Your task to perform on an android device: open the mobile data screen to see how much data has been used Image 0: 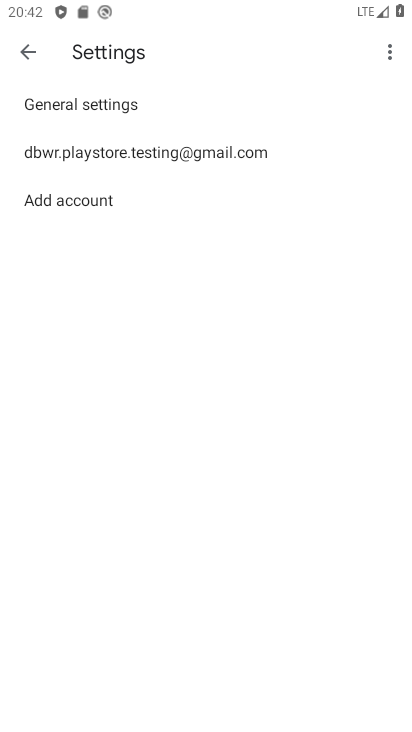
Step 0: press home button
Your task to perform on an android device: open the mobile data screen to see how much data has been used Image 1: 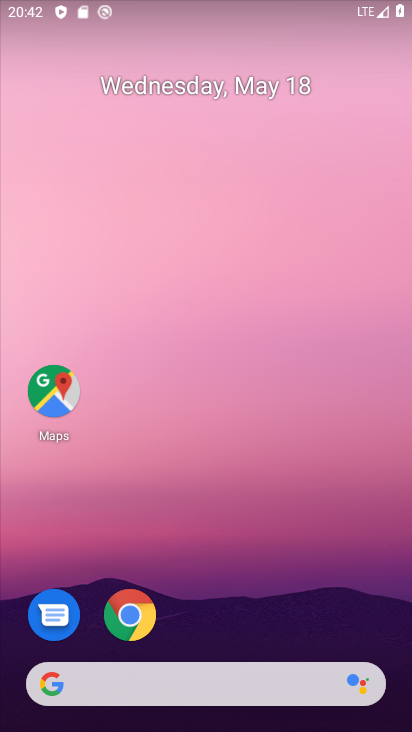
Step 1: drag from (220, 669) to (222, 117)
Your task to perform on an android device: open the mobile data screen to see how much data has been used Image 2: 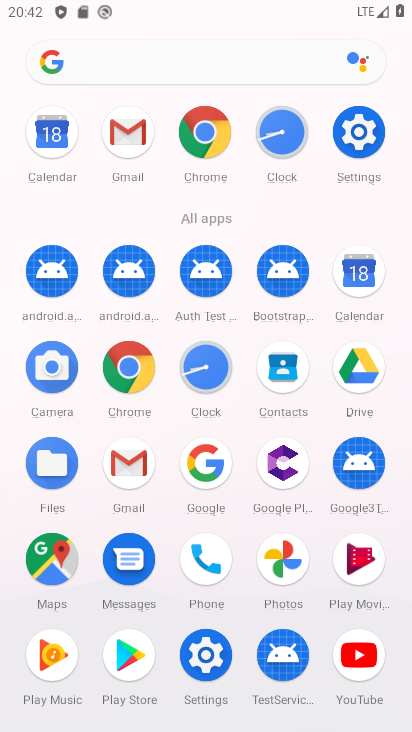
Step 2: click (355, 131)
Your task to perform on an android device: open the mobile data screen to see how much data has been used Image 3: 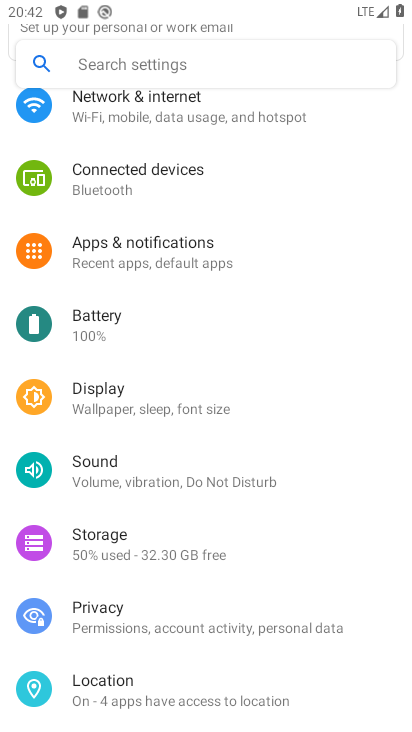
Step 3: click (136, 110)
Your task to perform on an android device: open the mobile data screen to see how much data has been used Image 4: 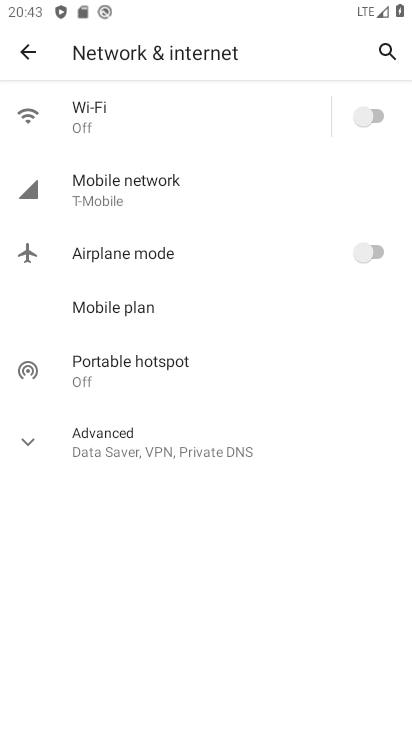
Step 4: click (115, 186)
Your task to perform on an android device: open the mobile data screen to see how much data has been used Image 5: 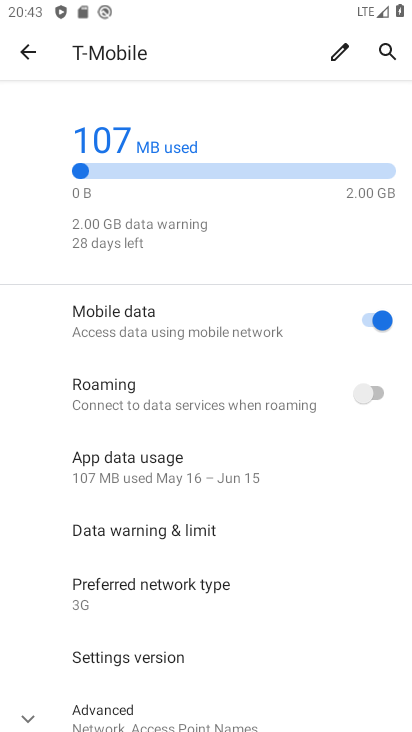
Step 5: task complete